Your task to perform on an android device: Turn off the flashlight Image 0: 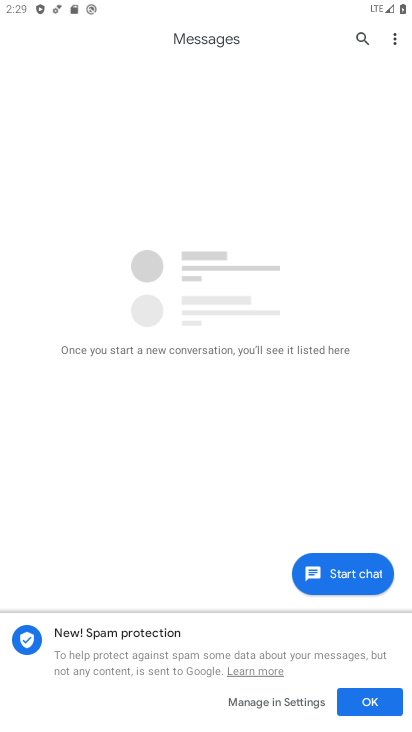
Step 0: press home button
Your task to perform on an android device: Turn off the flashlight Image 1: 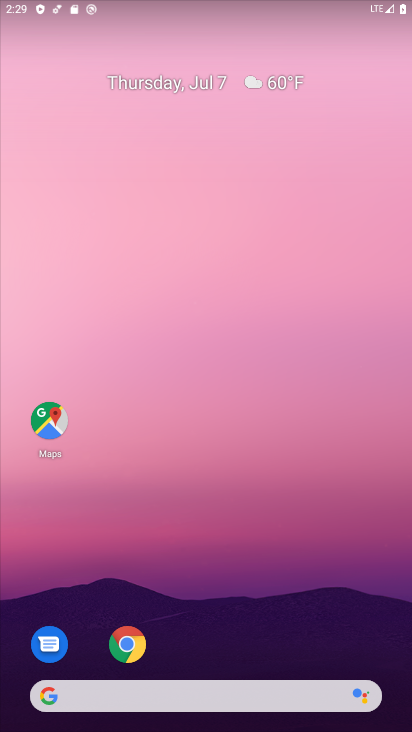
Step 1: task complete